Your task to perform on an android device: change keyboard looks Image 0: 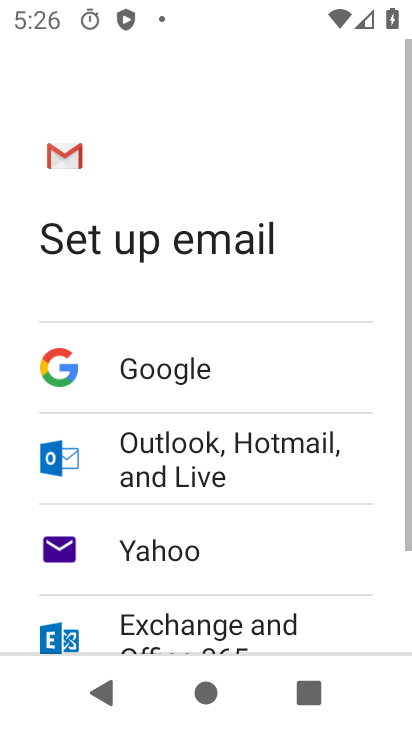
Step 0: press home button
Your task to perform on an android device: change keyboard looks Image 1: 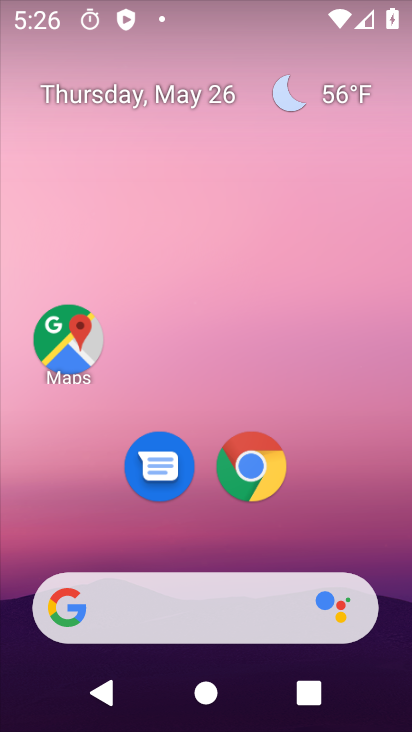
Step 1: drag from (347, 538) to (361, 148)
Your task to perform on an android device: change keyboard looks Image 2: 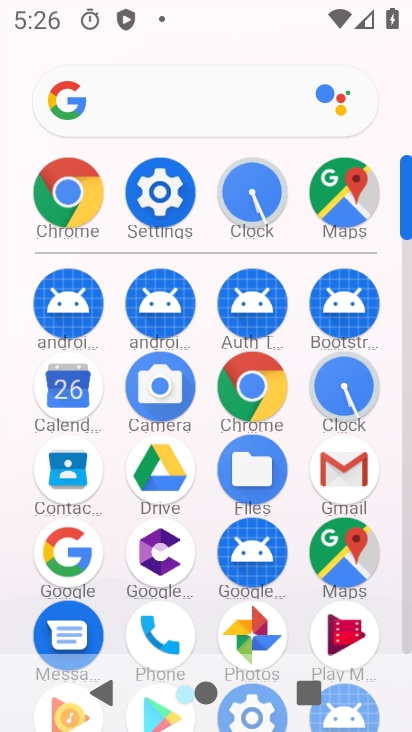
Step 2: click (157, 189)
Your task to perform on an android device: change keyboard looks Image 3: 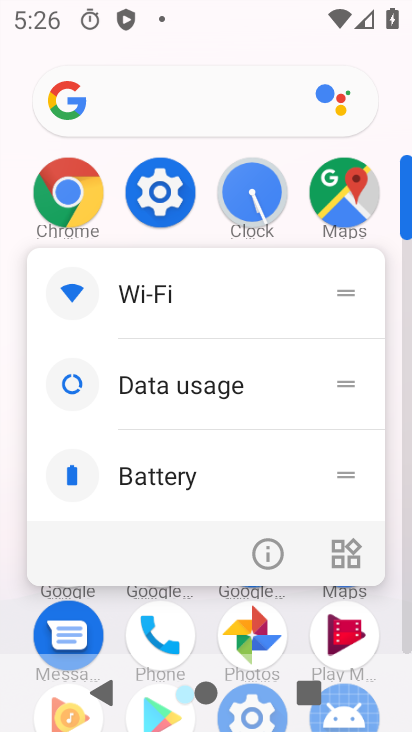
Step 3: click (157, 189)
Your task to perform on an android device: change keyboard looks Image 4: 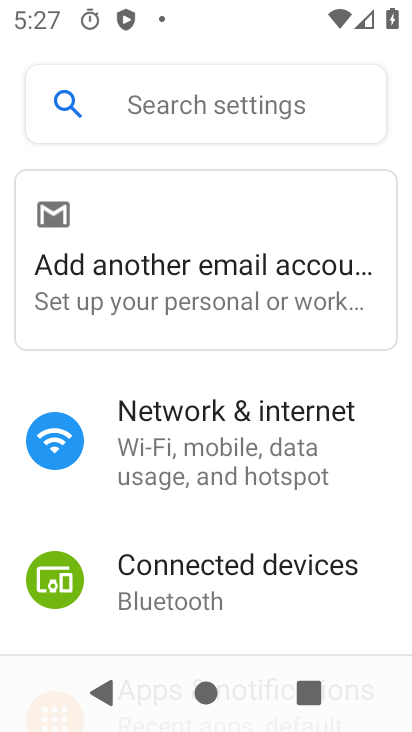
Step 4: drag from (277, 594) to (247, 105)
Your task to perform on an android device: change keyboard looks Image 5: 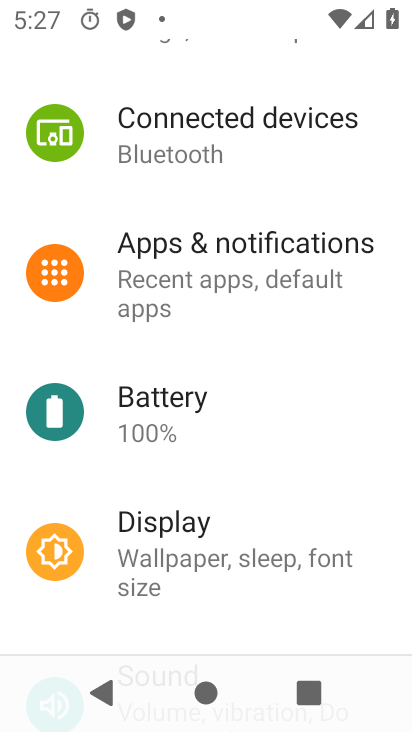
Step 5: drag from (275, 593) to (248, 187)
Your task to perform on an android device: change keyboard looks Image 6: 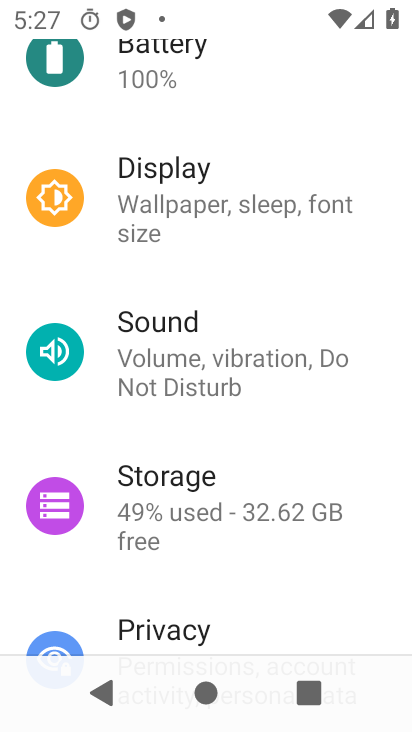
Step 6: drag from (291, 580) to (289, 147)
Your task to perform on an android device: change keyboard looks Image 7: 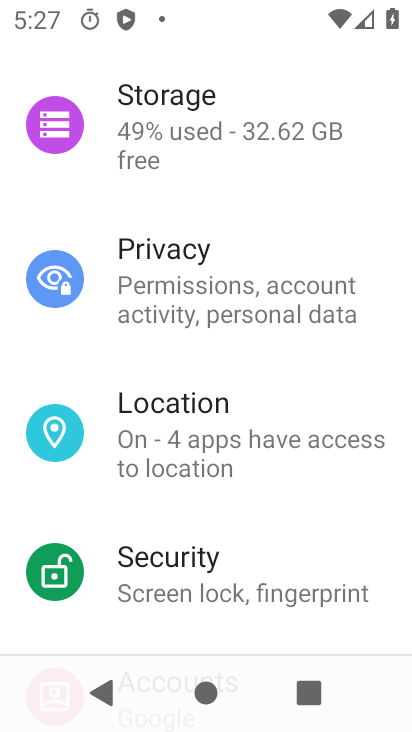
Step 7: drag from (273, 572) to (253, 220)
Your task to perform on an android device: change keyboard looks Image 8: 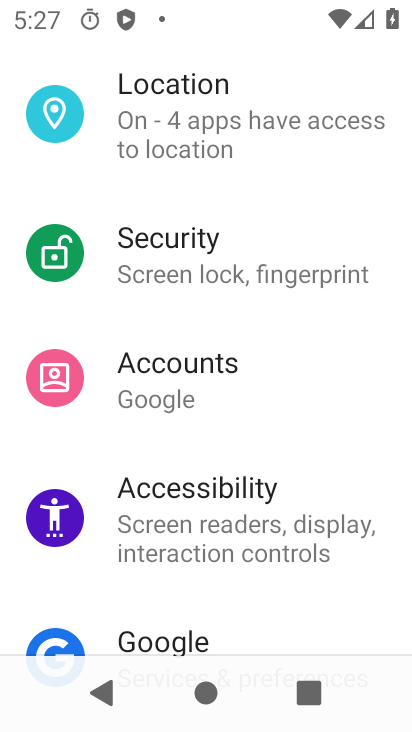
Step 8: drag from (287, 624) to (254, 319)
Your task to perform on an android device: change keyboard looks Image 9: 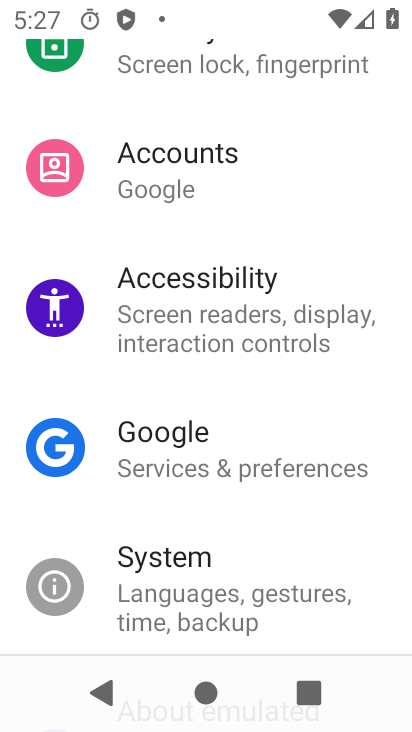
Step 9: click (238, 594)
Your task to perform on an android device: change keyboard looks Image 10: 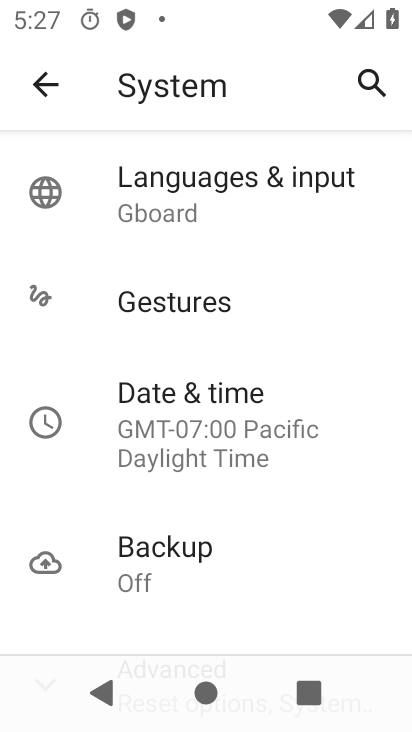
Step 10: click (170, 199)
Your task to perform on an android device: change keyboard looks Image 11: 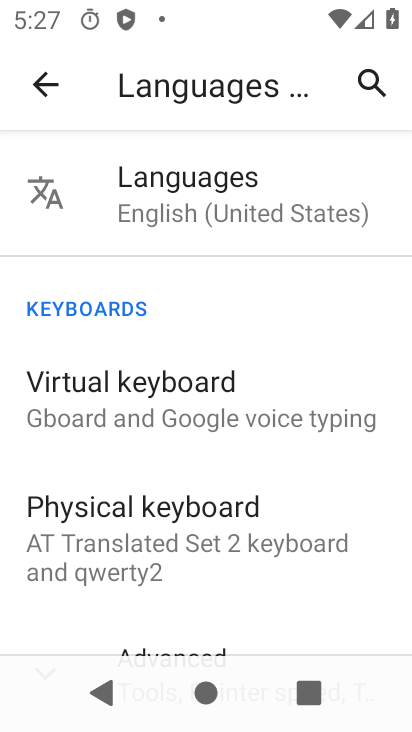
Step 11: click (110, 402)
Your task to perform on an android device: change keyboard looks Image 12: 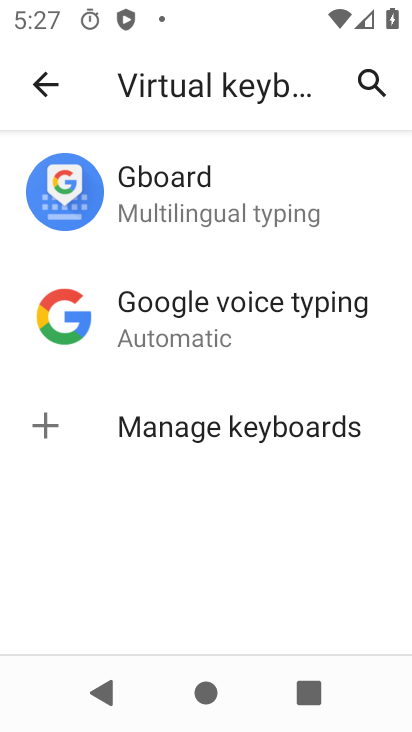
Step 12: click (155, 201)
Your task to perform on an android device: change keyboard looks Image 13: 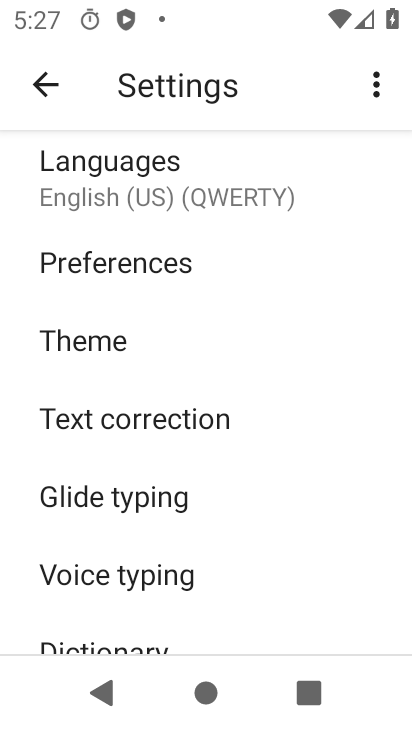
Step 13: click (112, 338)
Your task to perform on an android device: change keyboard looks Image 14: 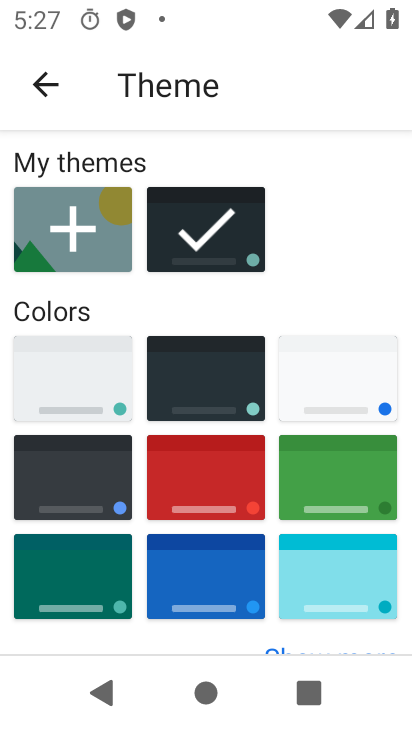
Step 14: click (228, 377)
Your task to perform on an android device: change keyboard looks Image 15: 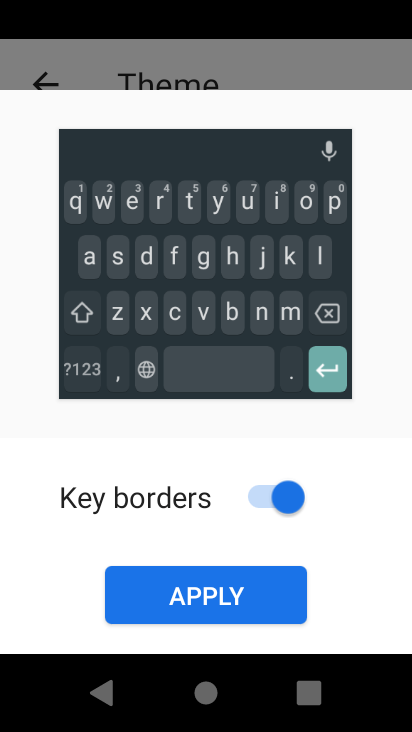
Step 15: click (222, 594)
Your task to perform on an android device: change keyboard looks Image 16: 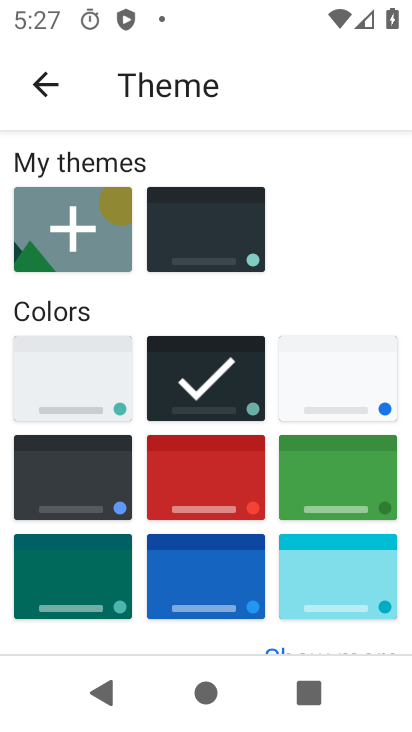
Step 16: task complete